Your task to perform on an android device: check data usage Image 0: 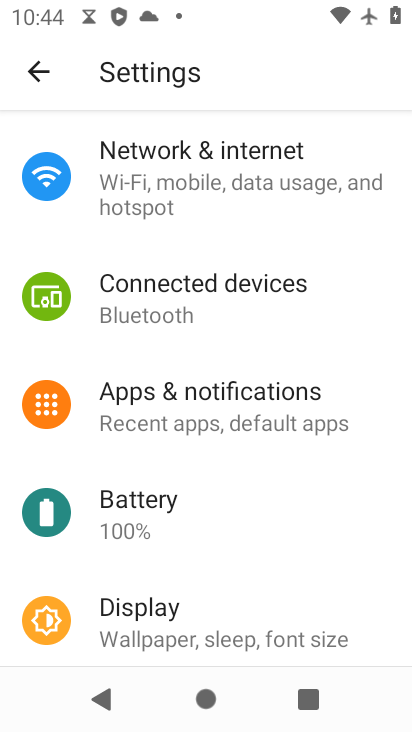
Step 0: drag from (174, 584) to (225, 316)
Your task to perform on an android device: check data usage Image 1: 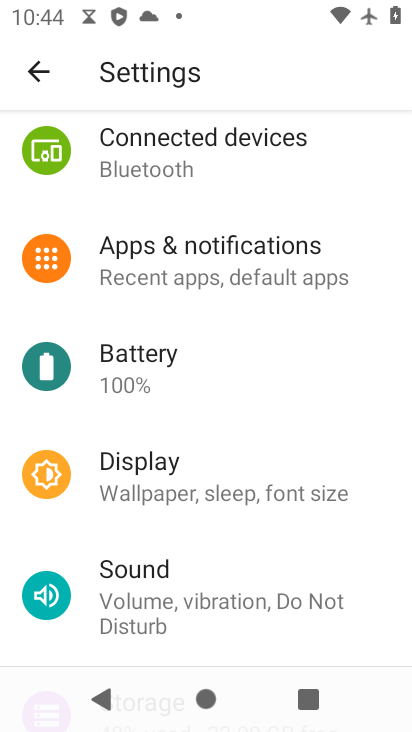
Step 1: drag from (245, 300) to (273, 621)
Your task to perform on an android device: check data usage Image 2: 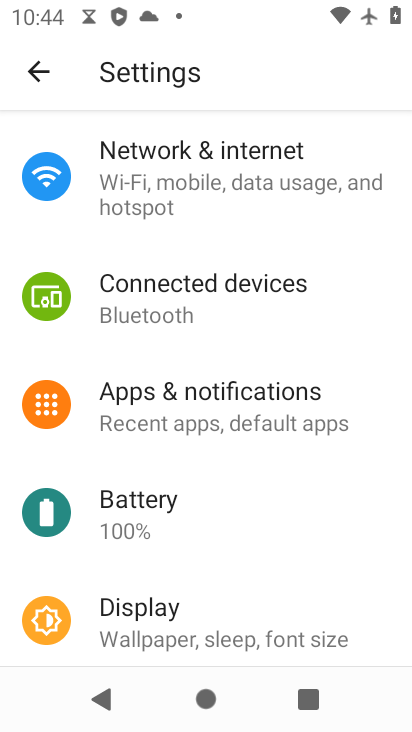
Step 2: click (252, 178)
Your task to perform on an android device: check data usage Image 3: 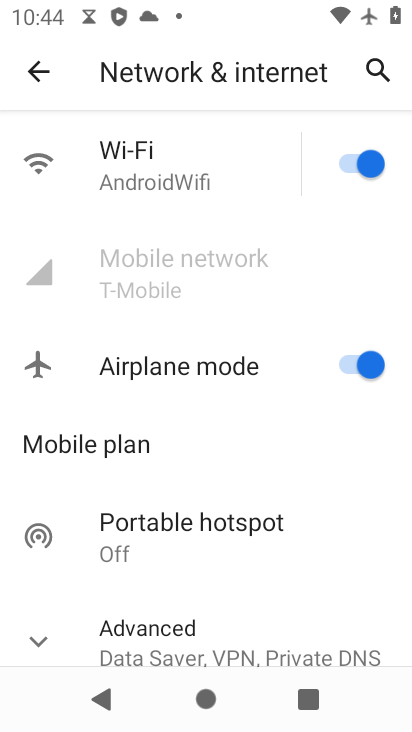
Step 3: drag from (171, 554) to (234, 257)
Your task to perform on an android device: check data usage Image 4: 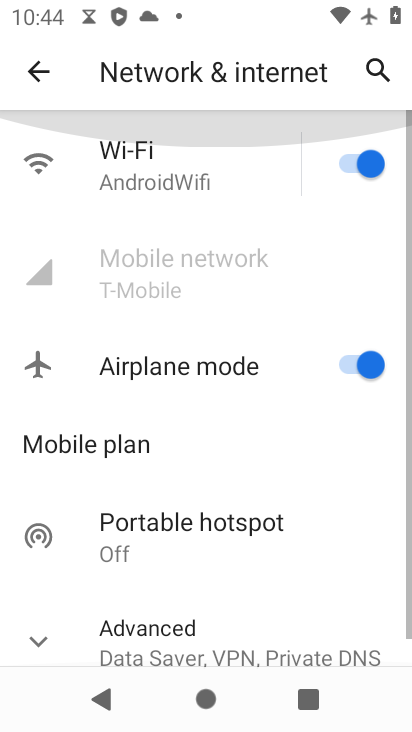
Step 4: click (231, 256)
Your task to perform on an android device: check data usage Image 5: 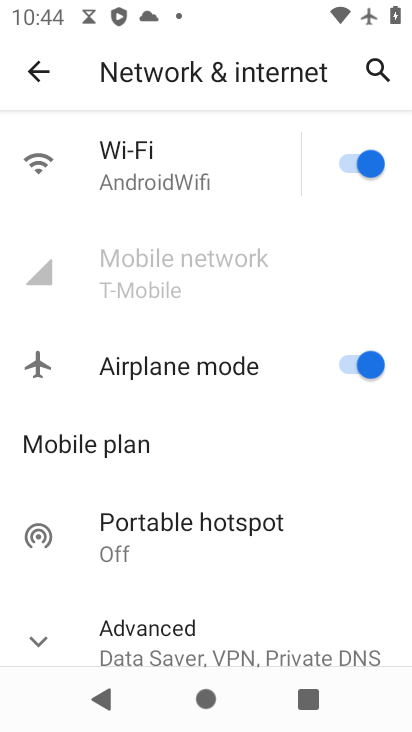
Step 5: click (55, 70)
Your task to perform on an android device: check data usage Image 6: 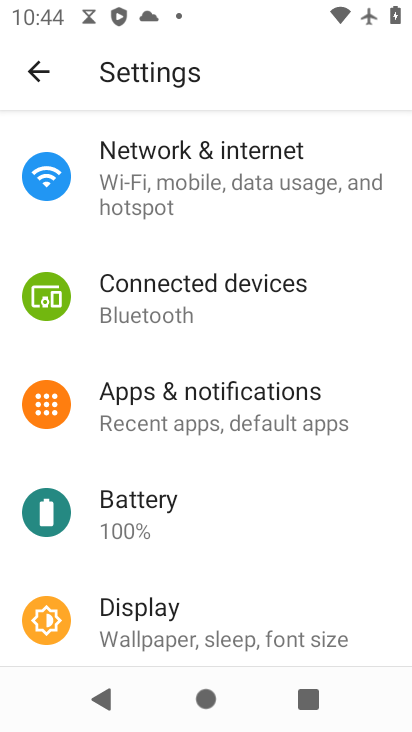
Step 6: drag from (222, 555) to (352, 162)
Your task to perform on an android device: check data usage Image 7: 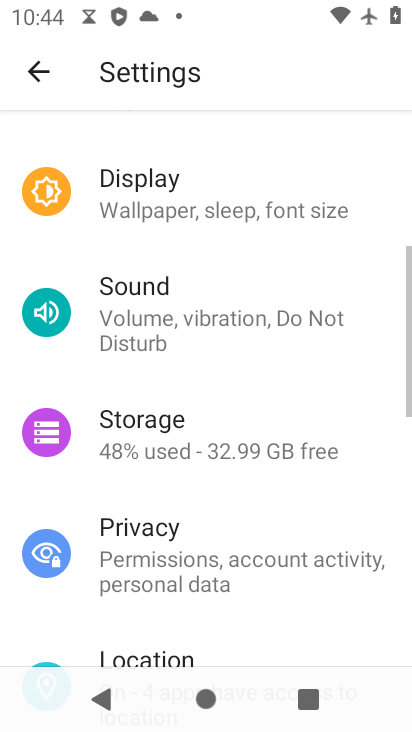
Step 7: drag from (252, 200) to (203, 695)
Your task to perform on an android device: check data usage Image 8: 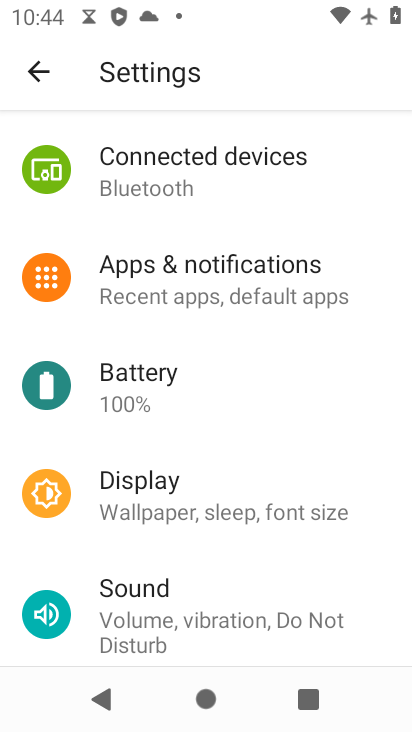
Step 8: drag from (193, 185) to (220, 594)
Your task to perform on an android device: check data usage Image 9: 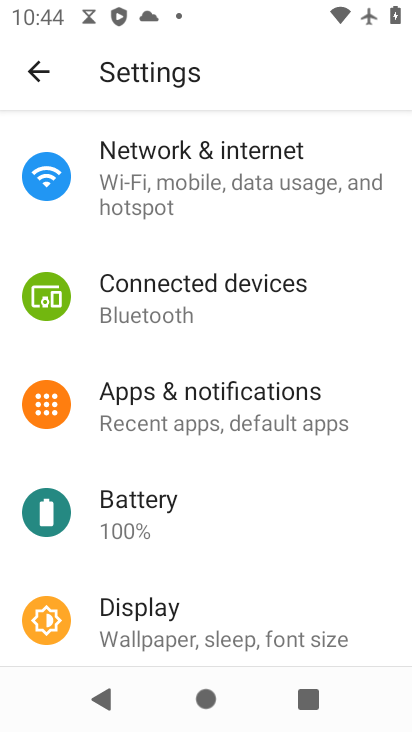
Step 9: click (282, 178)
Your task to perform on an android device: check data usage Image 10: 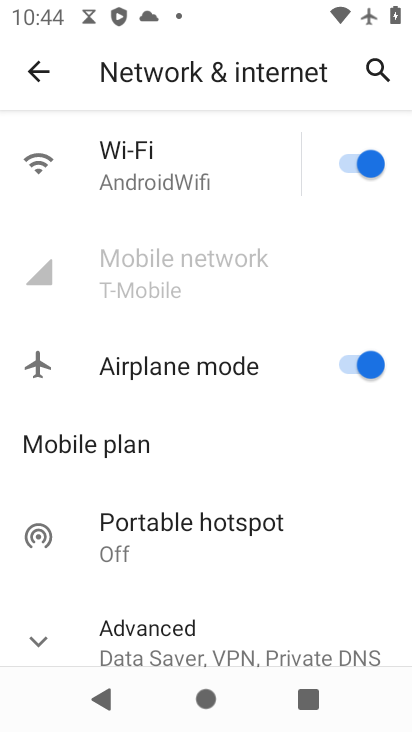
Step 10: task complete